Your task to perform on an android device: toggle wifi Image 0: 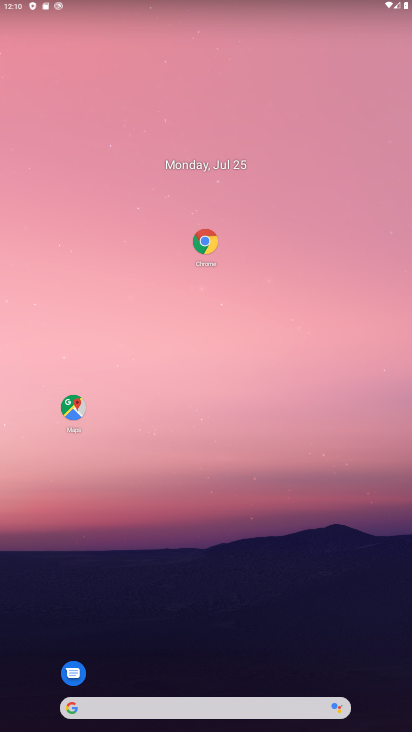
Step 0: drag from (264, 689) to (259, 0)
Your task to perform on an android device: toggle wifi Image 1: 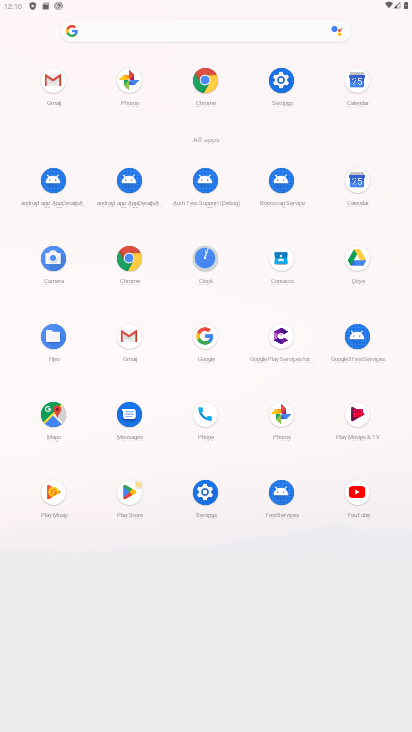
Step 1: click (278, 85)
Your task to perform on an android device: toggle wifi Image 2: 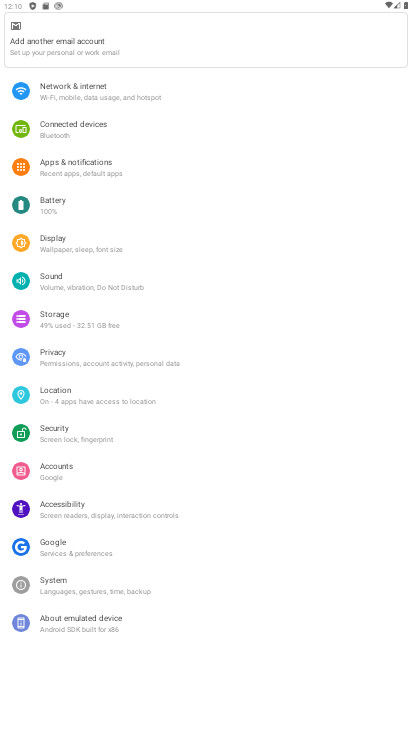
Step 2: click (127, 89)
Your task to perform on an android device: toggle wifi Image 3: 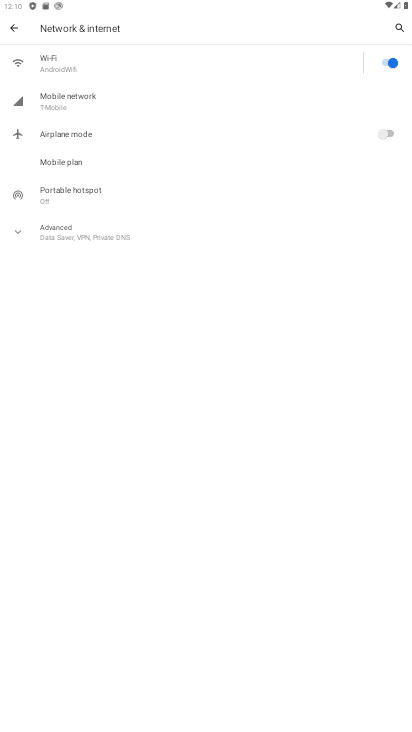
Step 3: click (391, 58)
Your task to perform on an android device: toggle wifi Image 4: 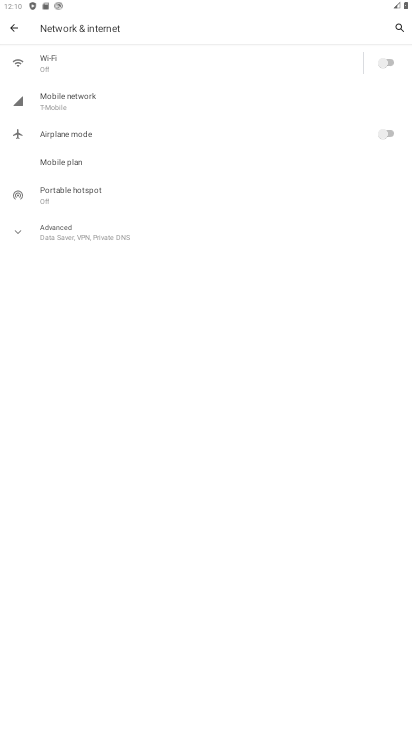
Step 4: task complete